Your task to perform on an android device: Open Chrome and go to settings Image 0: 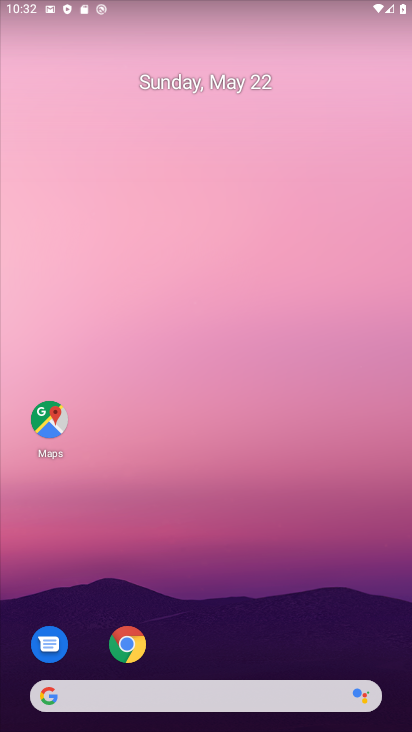
Step 0: press home button
Your task to perform on an android device: Open Chrome and go to settings Image 1: 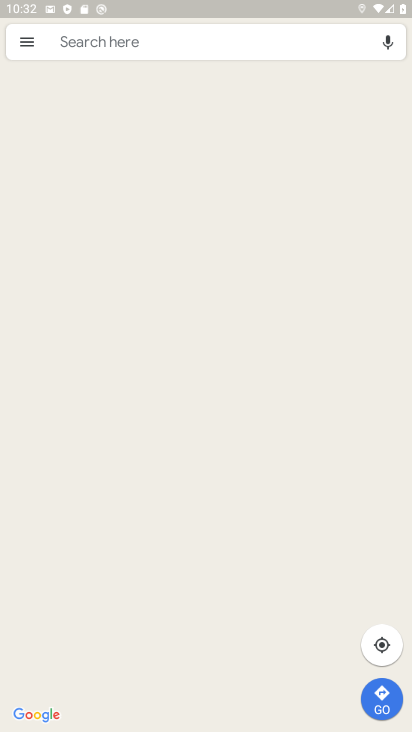
Step 1: drag from (15, 288) to (403, 289)
Your task to perform on an android device: Open Chrome and go to settings Image 2: 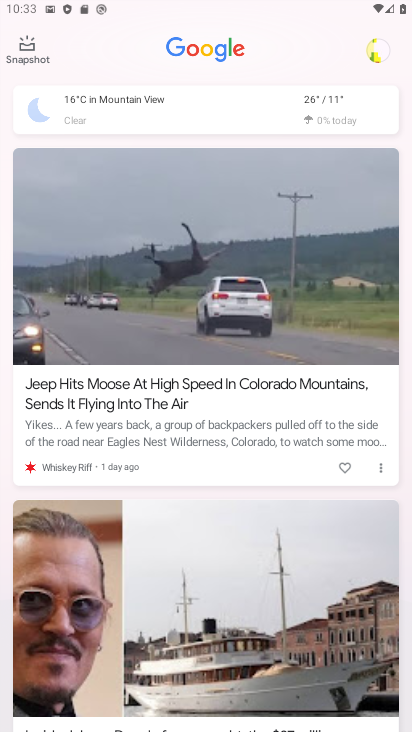
Step 2: click (278, 97)
Your task to perform on an android device: Open Chrome and go to settings Image 3: 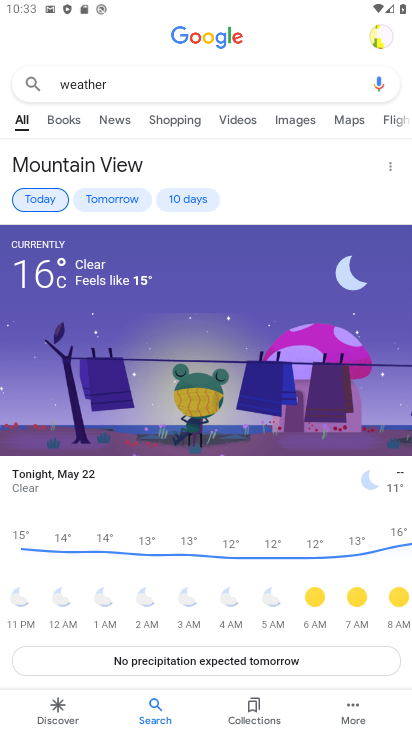
Step 3: press home button
Your task to perform on an android device: Open Chrome and go to settings Image 4: 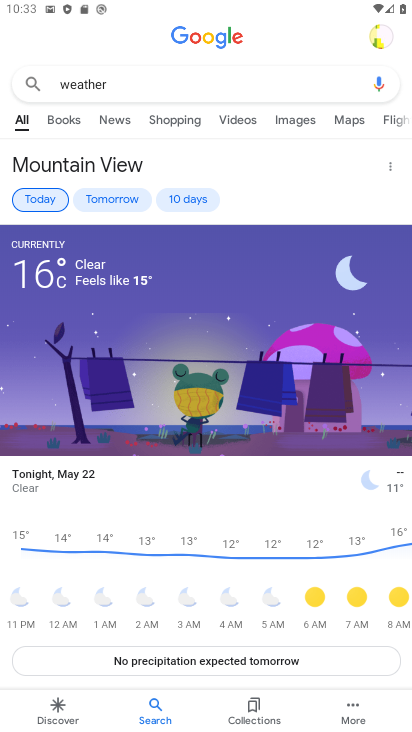
Step 4: press home button
Your task to perform on an android device: Open Chrome and go to settings Image 5: 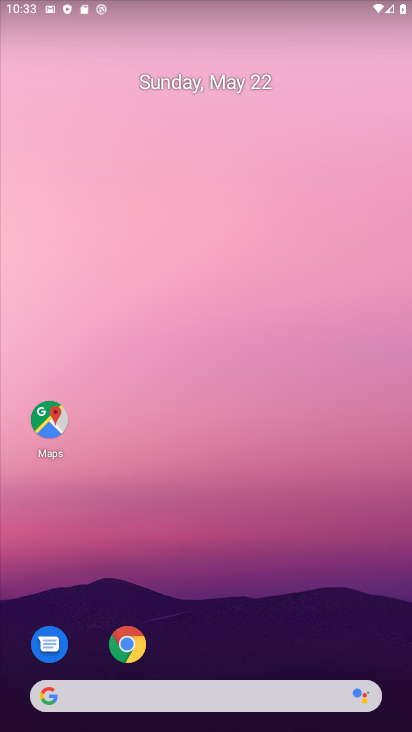
Step 5: click (133, 636)
Your task to perform on an android device: Open Chrome and go to settings Image 6: 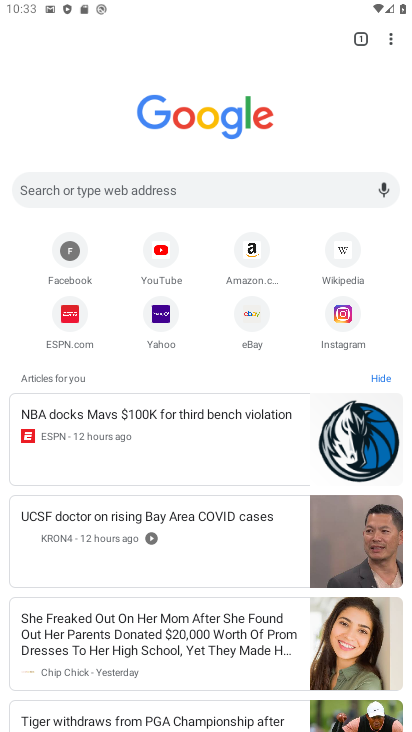
Step 6: click (390, 37)
Your task to perform on an android device: Open Chrome and go to settings Image 7: 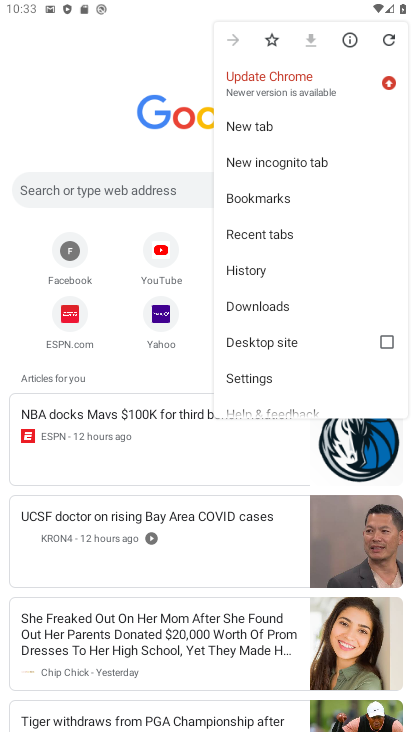
Step 7: click (279, 378)
Your task to perform on an android device: Open Chrome and go to settings Image 8: 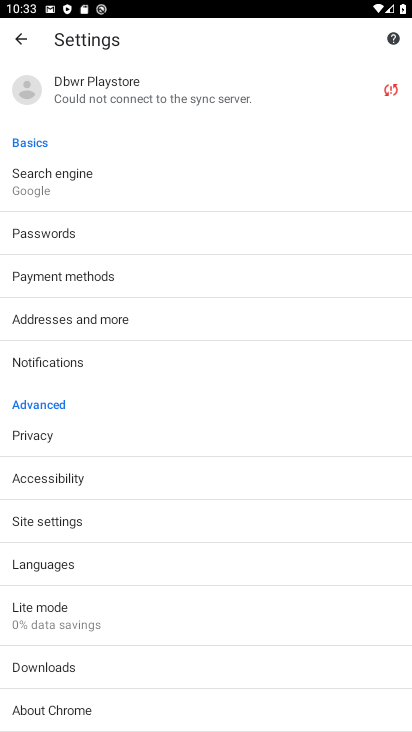
Step 8: task complete